Your task to perform on an android device: set an alarm Image 0: 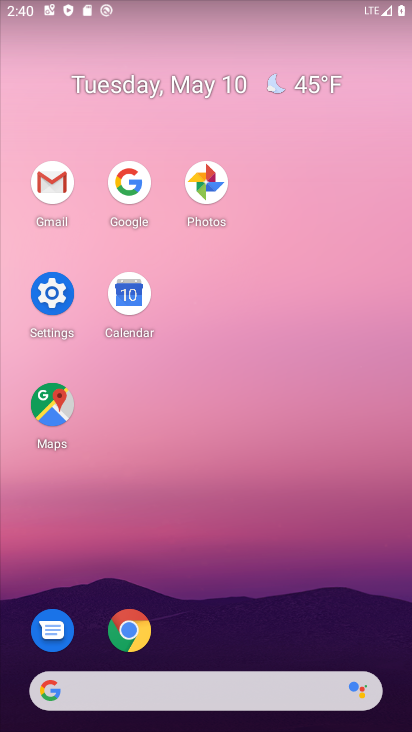
Step 0: drag from (265, 616) to (246, 200)
Your task to perform on an android device: set an alarm Image 1: 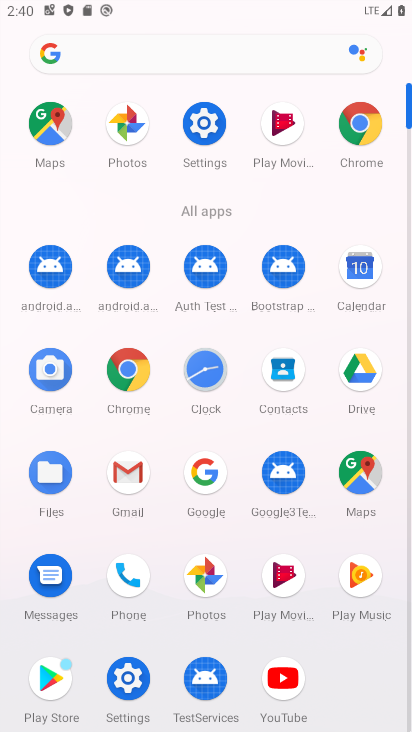
Step 1: drag from (205, 370) to (191, 329)
Your task to perform on an android device: set an alarm Image 2: 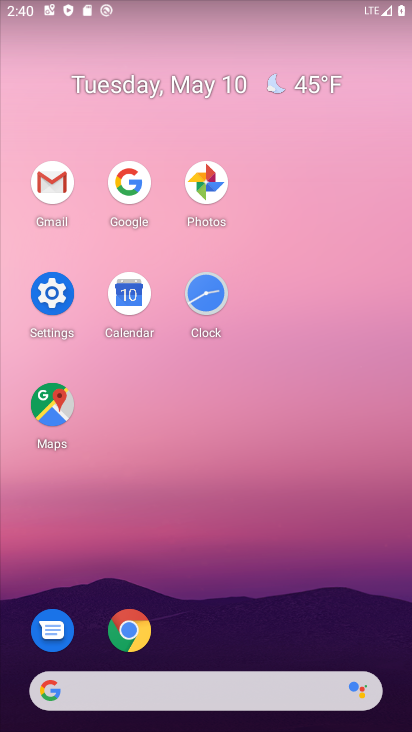
Step 2: click (206, 319)
Your task to perform on an android device: set an alarm Image 3: 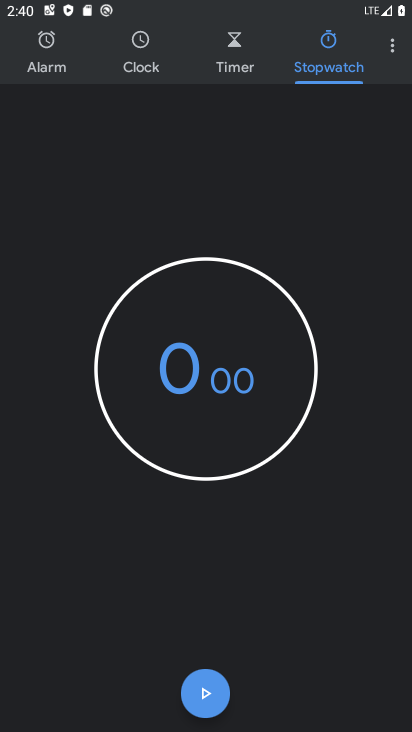
Step 3: click (39, 43)
Your task to perform on an android device: set an alarm Image 4: 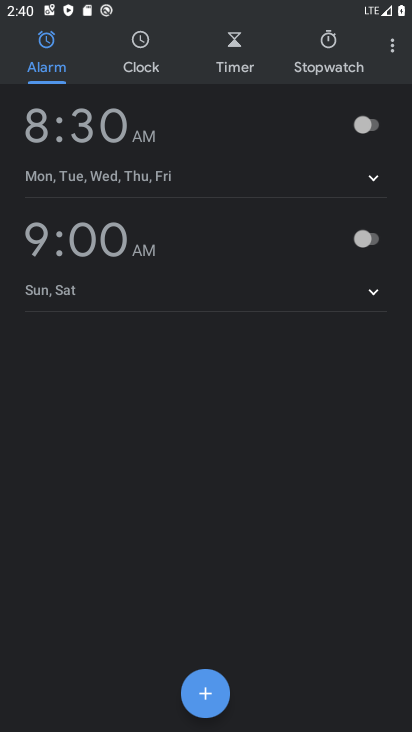
Step 4: click (370, 131)
Your task to perform on an android device: set an alarm Image 5: 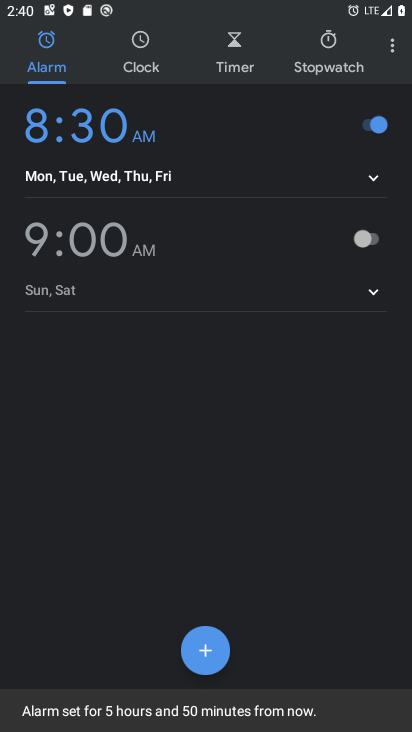
Step 5: task complete